Your task to perform on an android device: Open the stopwatch Image 0: 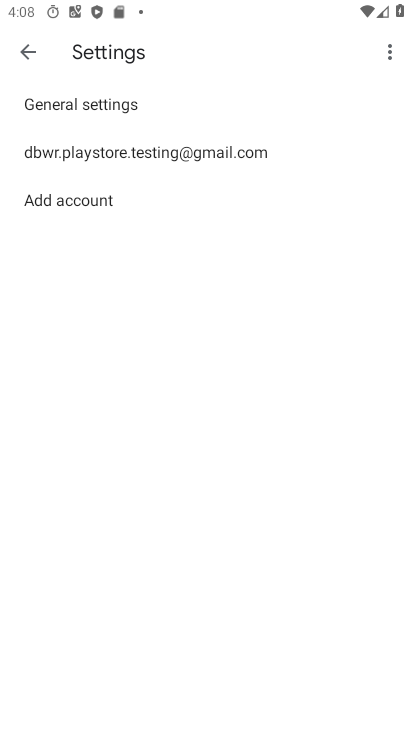
Step 0: press home button
Your task to perform on an android device: Open the stopwatch Image 1: 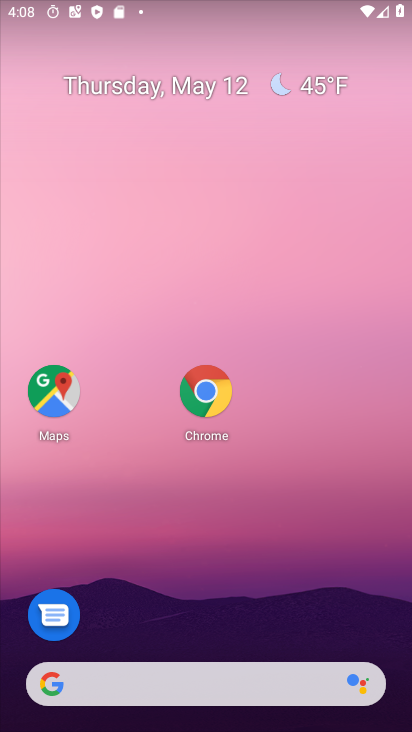
Step 1: drag from (240, 542) to (180, 36)
Your task to perform on an android device: Open the stopwatch Image 2: 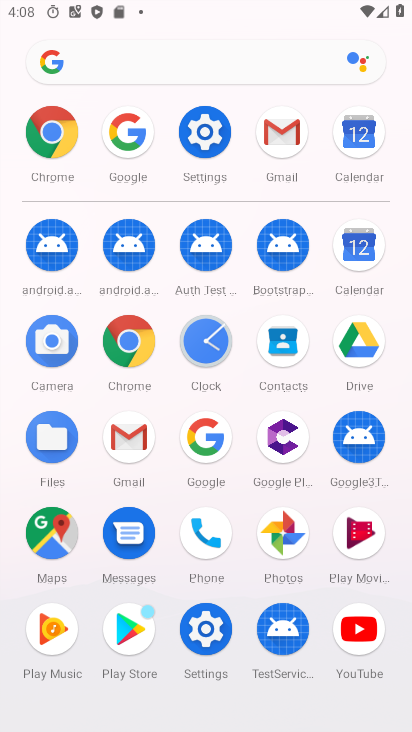
Step 2: drag from (272, 373) to (295, 131)
Your task to perform on an android device: Open the stopwatch Image 3: 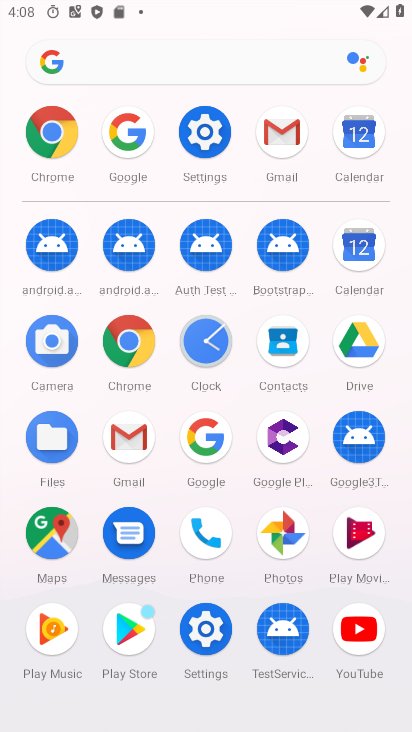
Step 3: click (203, 341)
Your task to perform on an android device: Open the stopwatch Image 4: 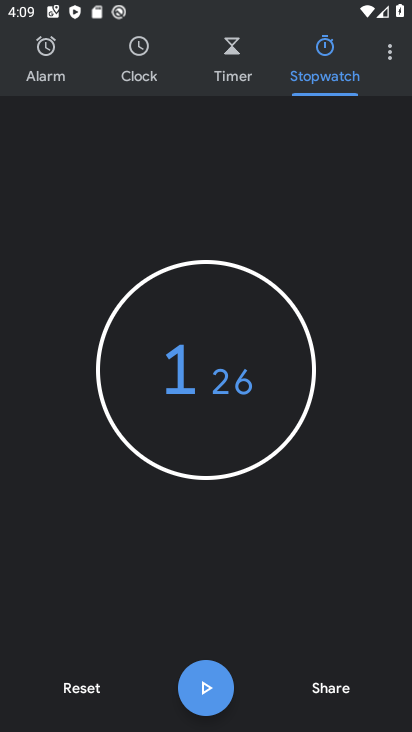
Step 4: click (200, 690)
Your task to perform on an android device: Open the stopwatch Image 5: 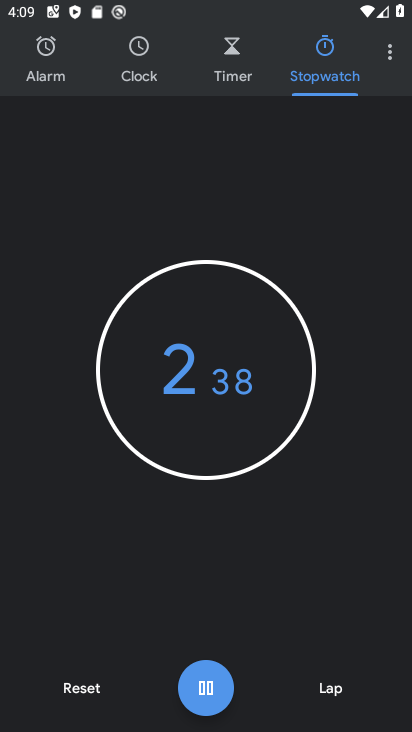
Step 5: click (200, 690)
Your task to perform on an android device: Open the stopwatch Image 6: 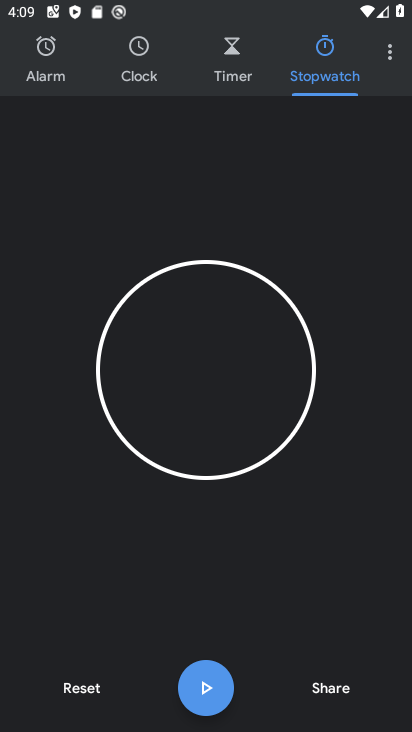
Step 6: task complete